Your task to perform on an android device: open app "Google Drive" Image 0: 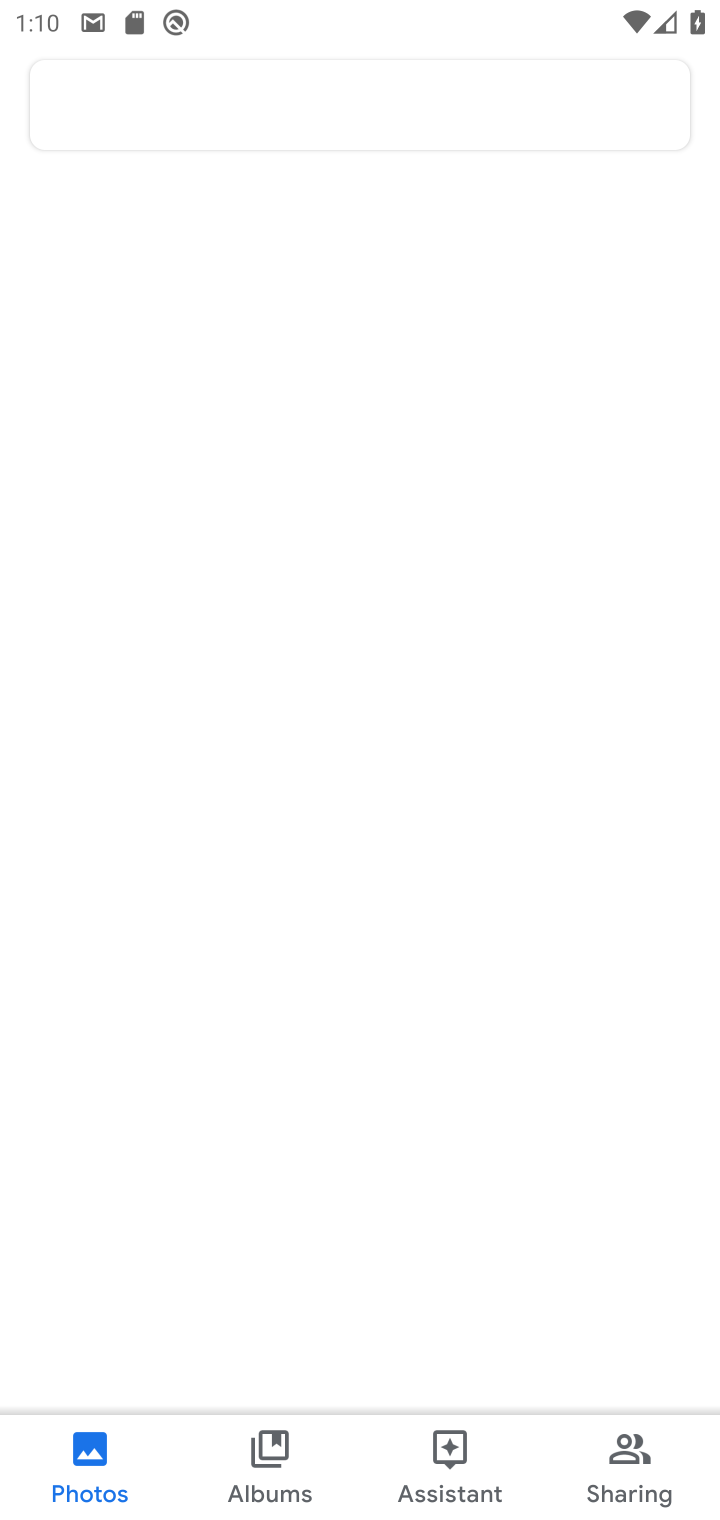
Step 0: press home button
Your task to perform on an android device: open app "Google Drive" Image 1: 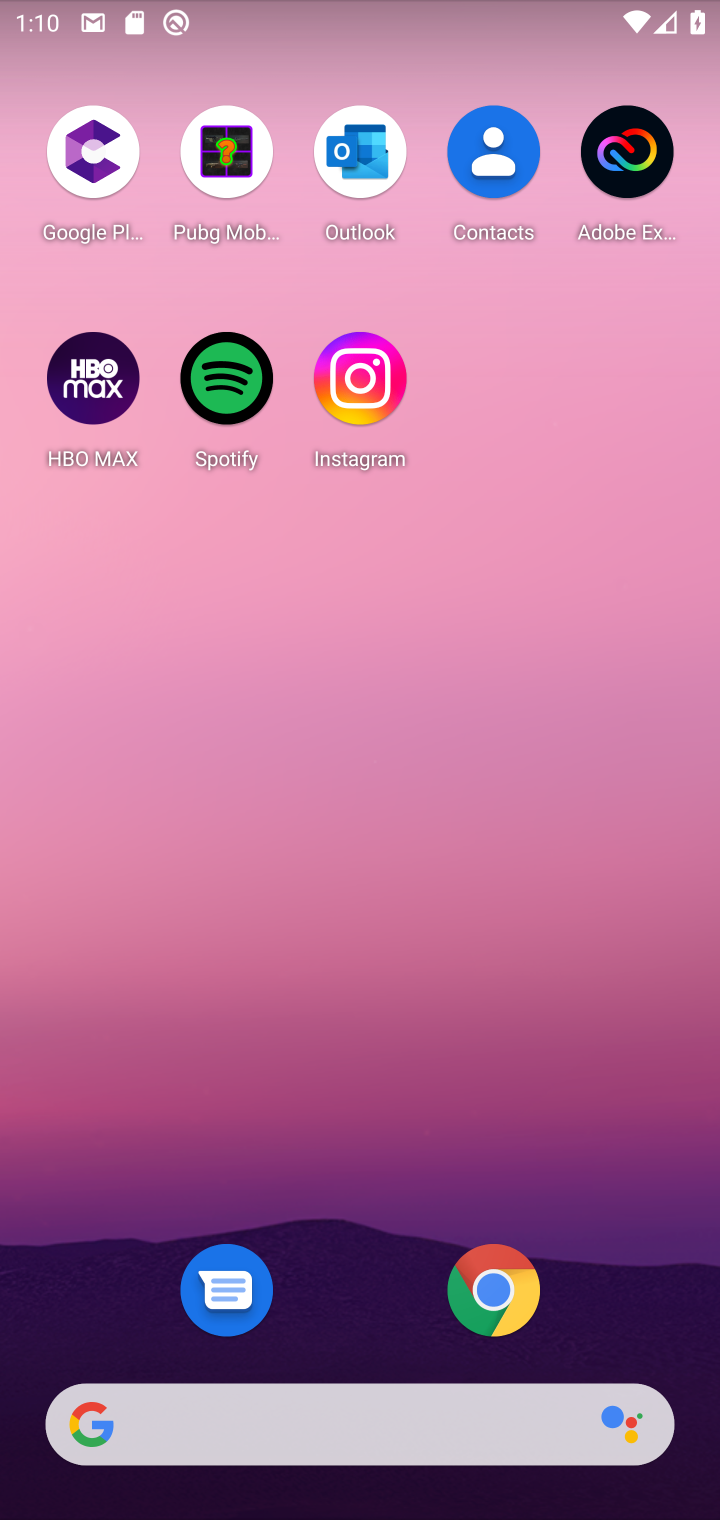
Step 1: drag from (342, 1288) to (390, 229)
Your task to perform on an android device: open app "Google Drive" Image 2: 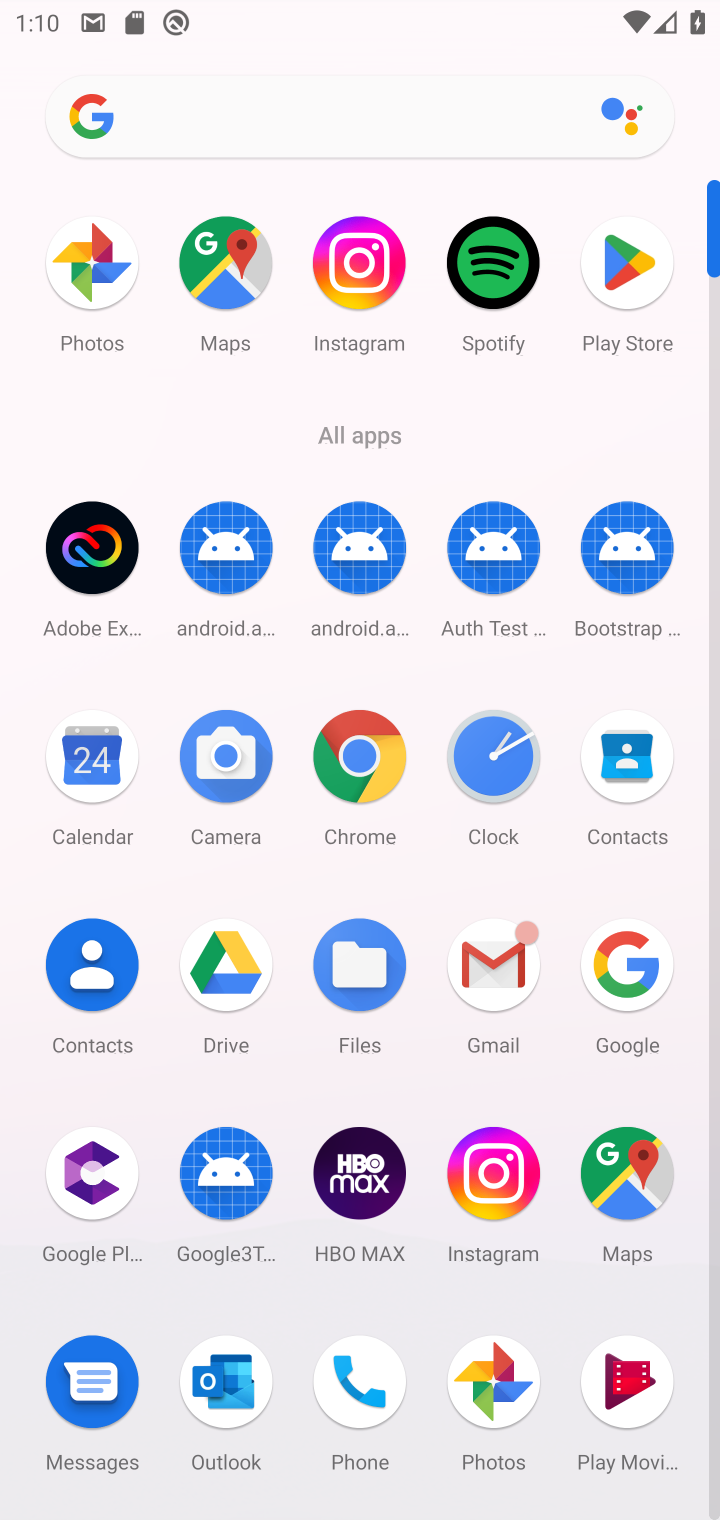
Step 2: click (619, 274)
Your task to perform on an android device: open app "Google Drive" Image 3: 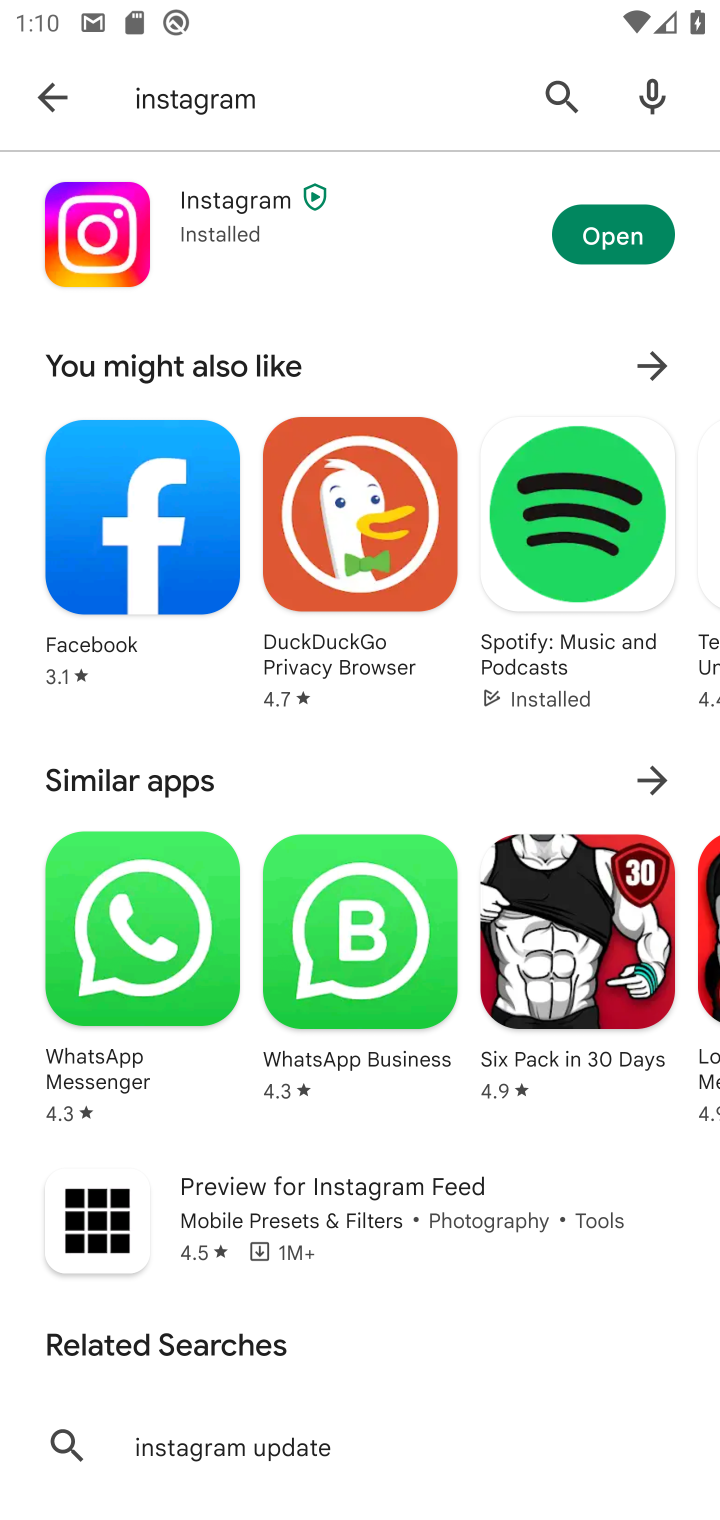
Step 3: click (50, 78)
Your task to perform on an android device: open app "Google Drive" Image 4: 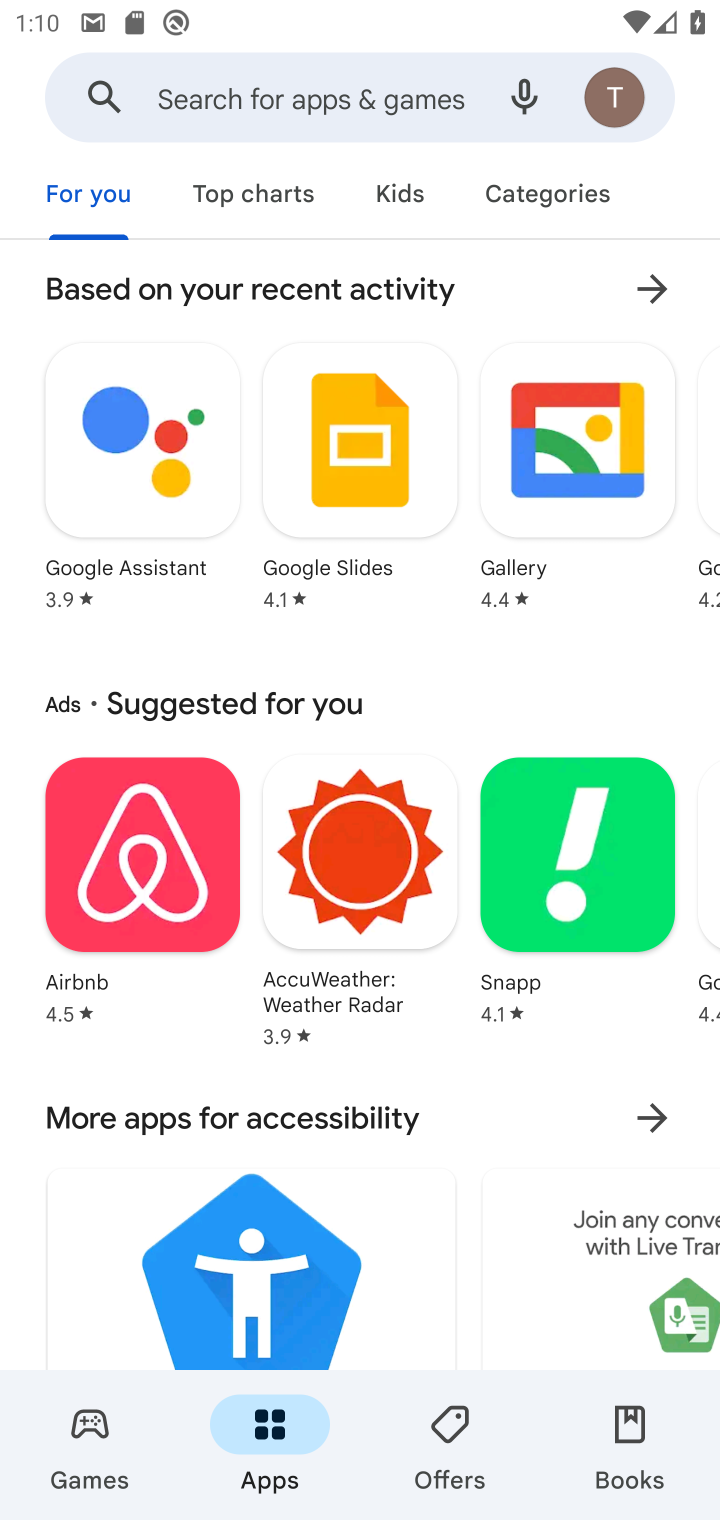
Step 4: click (334, 61)
Your task to perform on an android device: open app "Google Drive" Image 5: 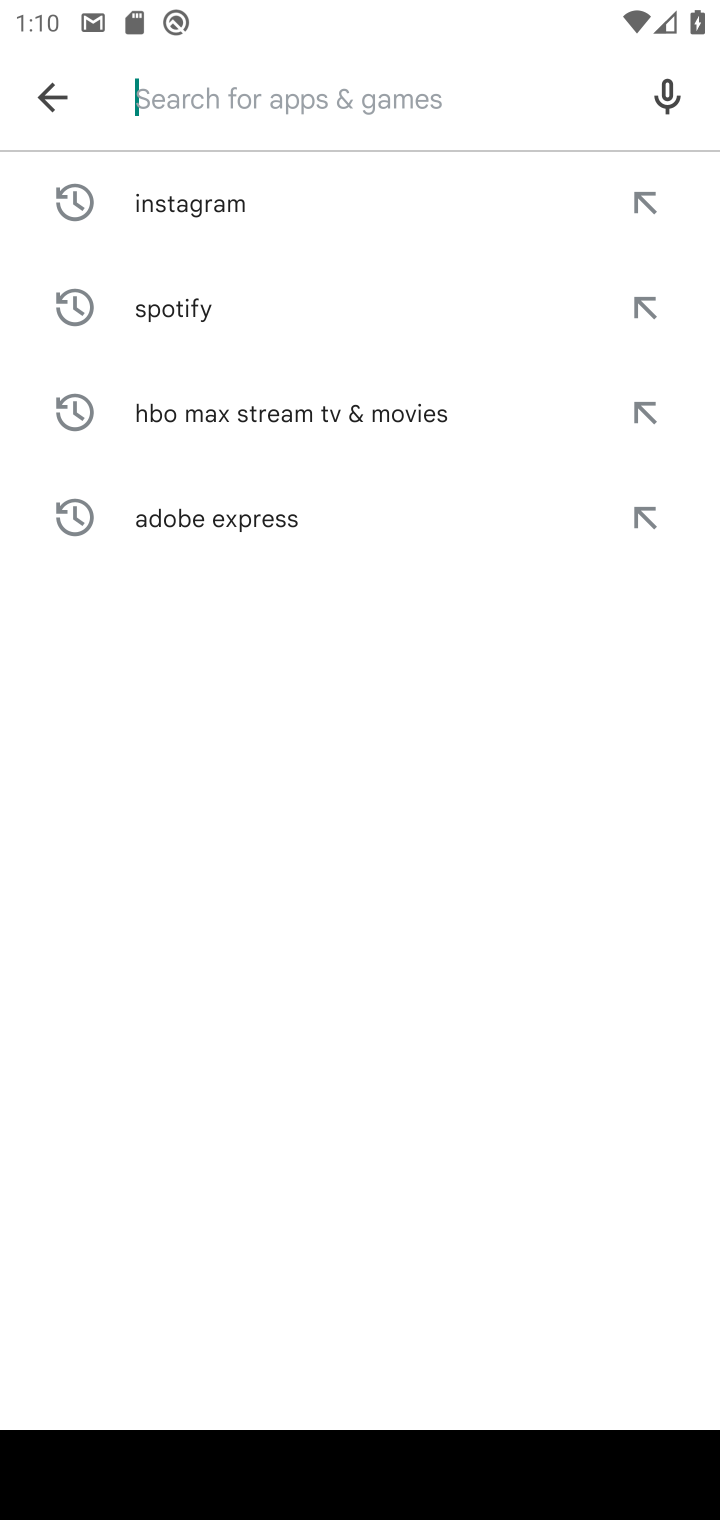
Step 5: type "Google Drive""
Your task to perform on an android device: open app "Google Drive" Image 6: 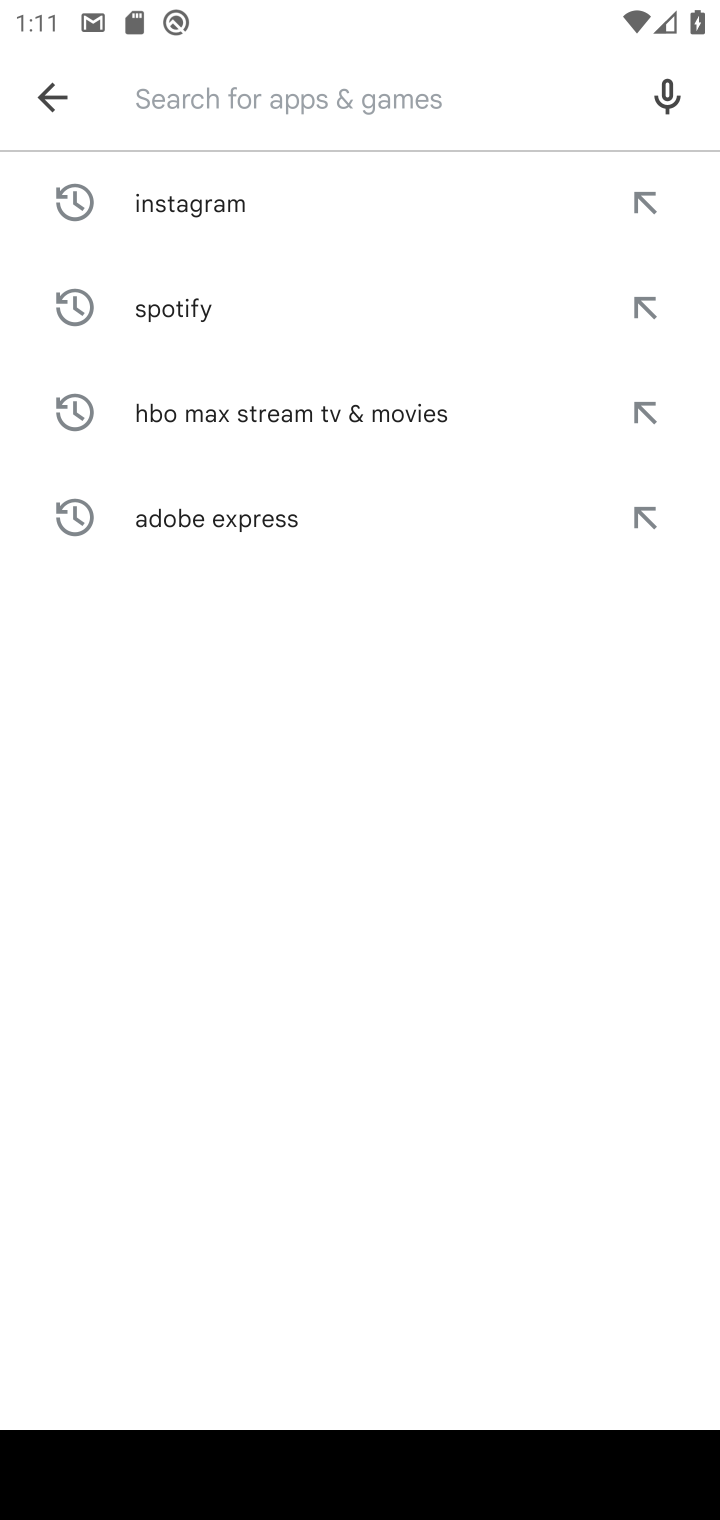
Step 6: click (233, 81)
Your task to perform on an android device: open app "Google Drive" Image 7: 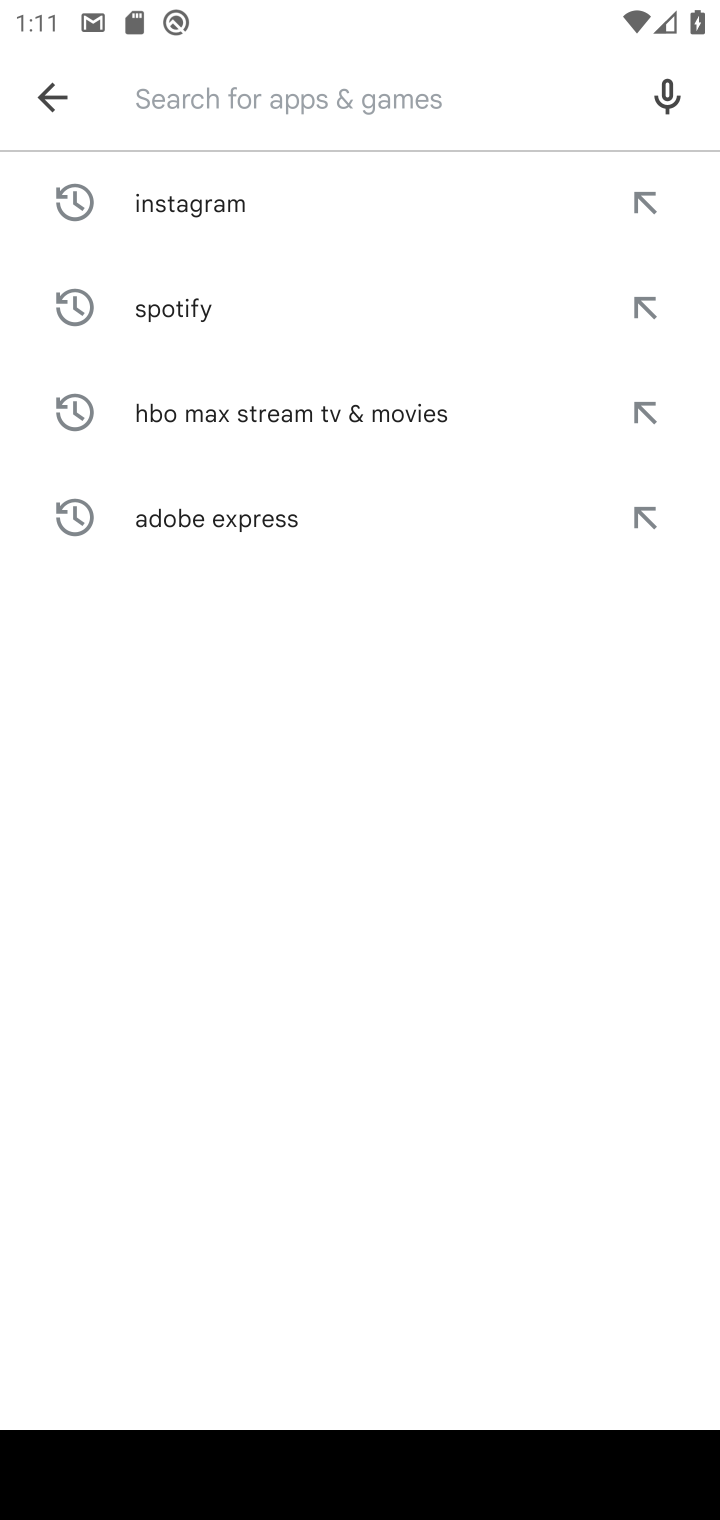
Step 7: type "Google Drive""
Your task to perform on an android device: open app "Google Drive" Image 8: 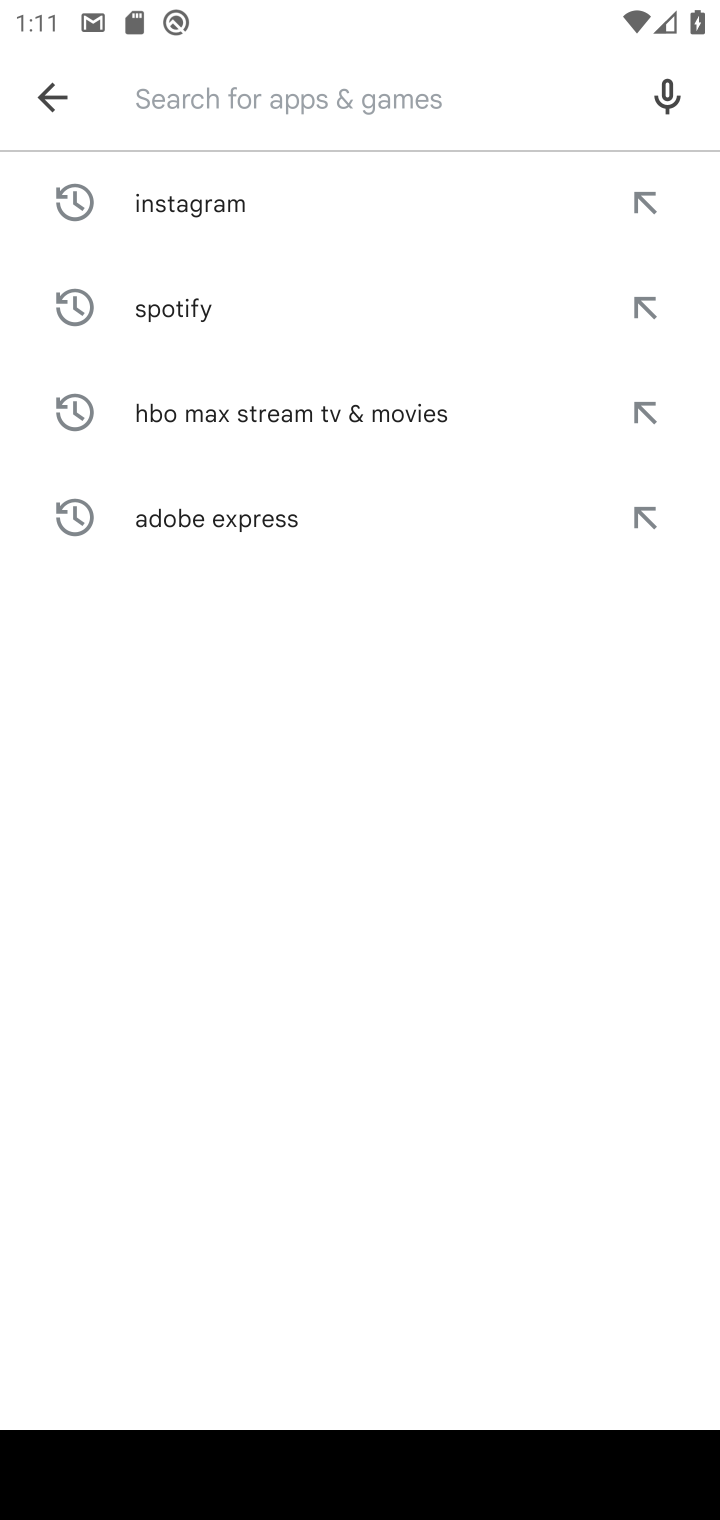
Step 8: task complete